Your task to perform on an android device: delete browsing data in the chrome app Image 0: 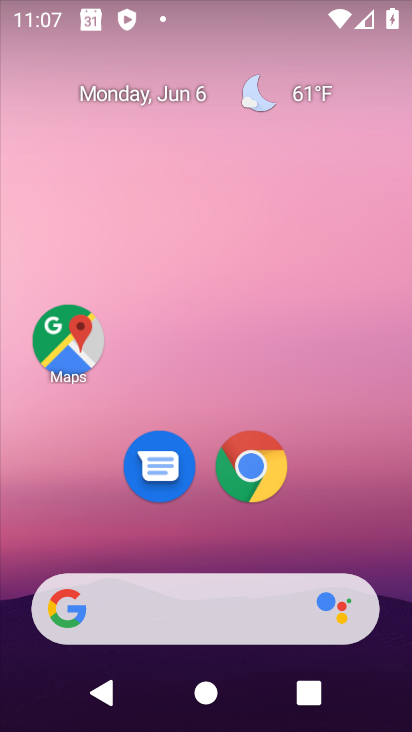
Step 0: click (246, 463)
Your task to perform on an android device: delete browsing data in the chrome app Image 1: 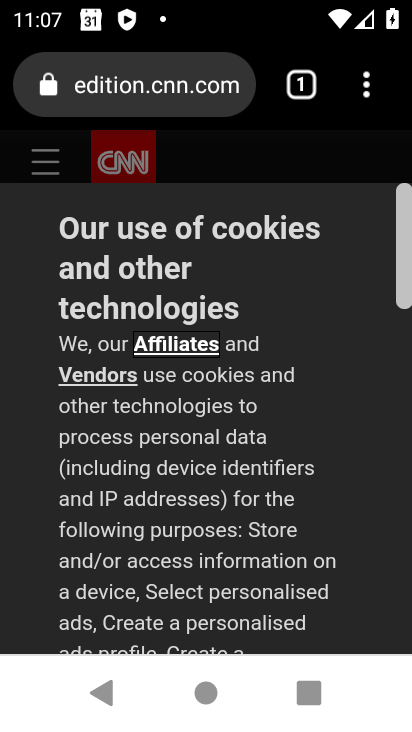
Step 1: drag from (370, 74) to (136, 515)
Your task to perform on an android device: delete browsing data in the chrome app Image 2: 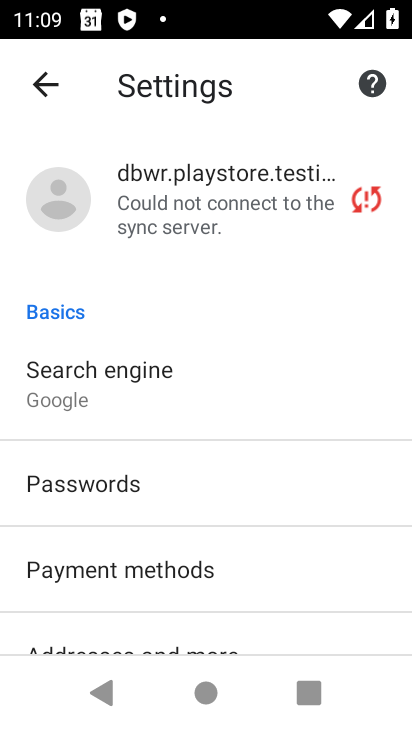
Step 2: drag from (252, 639) to (144, 157)
Your task to perform on an android device: delete browsing data in the chrome app Image 3: 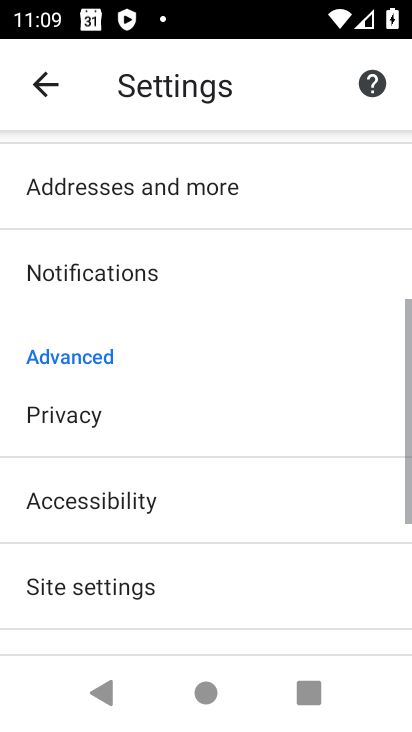
Step 3: drag from (283, 613) to (228, 487)
Your task to perform on an android device: delete browsing data in the chrome app Image 4: 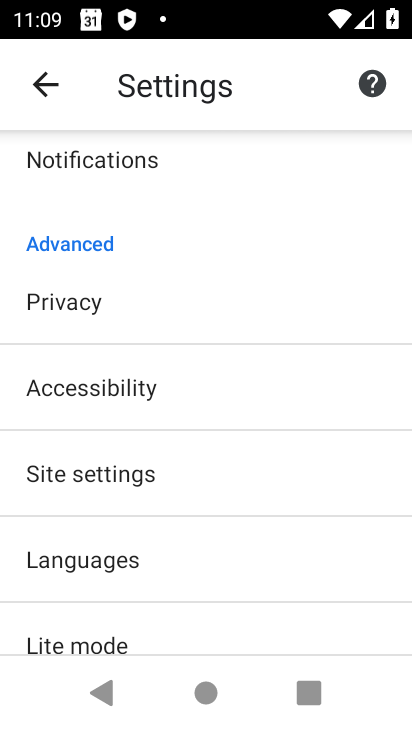
Step 4: click (126, 316)
Your task to perform on an android device: delete browsing data in the chrome app Image 5: 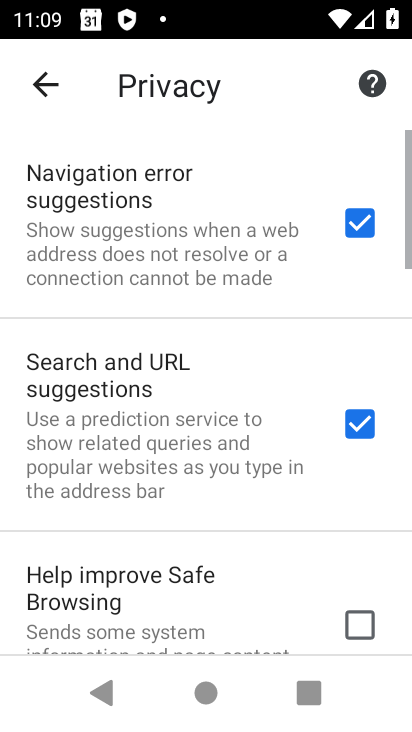
Step 5: drag from (273, 602) to (162, 307)
Your task to perform on an android device: delete browsing data in the chrome app Image 6: 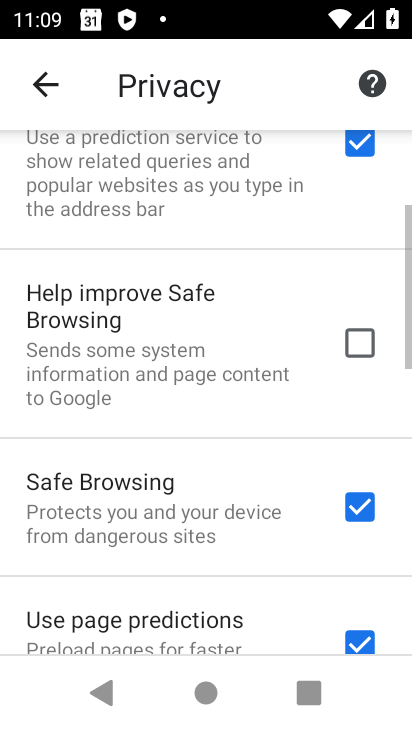
Step 6: drag from (245, 604) to (162, 258)
Your task to perform on an android device: delete browsing data in the chrome app Image 7: 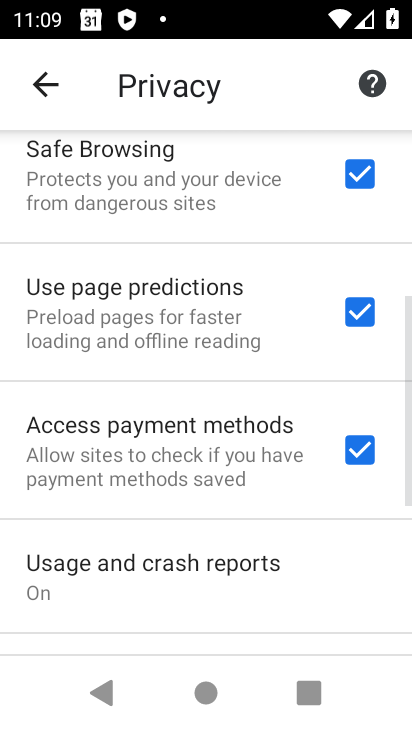
Step 7: drag from (241, 602) to (180, 326)
Your task to perform on an android device: delete browsing data in the chrome app Image 8: 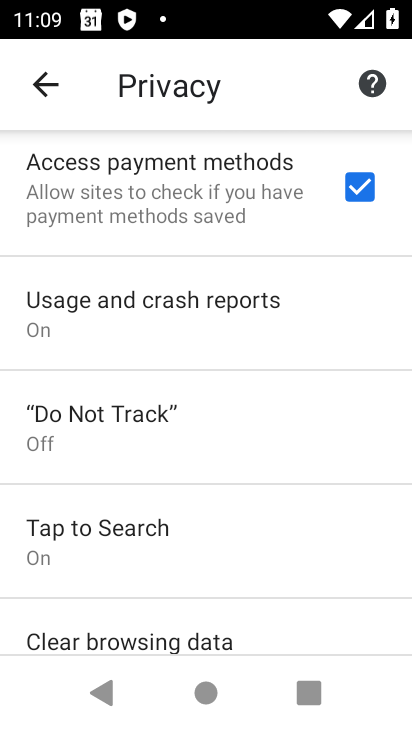
Step 8: drag from (237, 597) to (197, 280)
Your task to perform on an android device: delete browsing data in the chrome app Image 9: 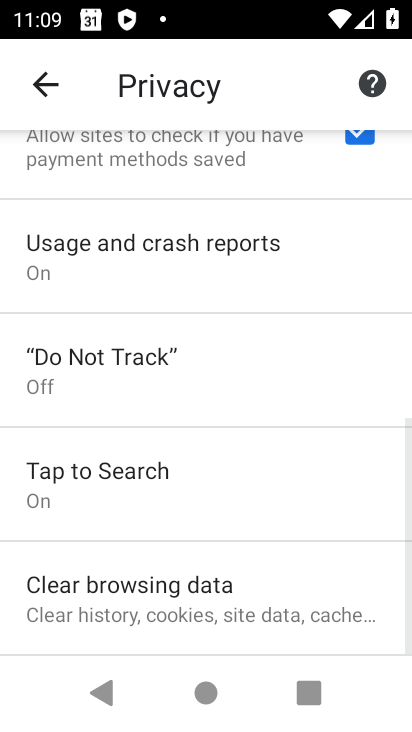
Step 9: click (230, 599)
Your task to perform on an android device: delete browsing data in the chrome app Image 10: 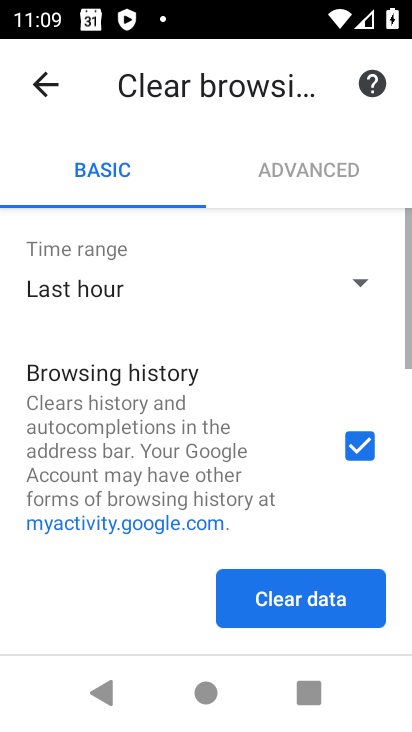
Step 10: task complete